Your task to perform on an android device: Search for sushi restaurants on Maps Image 0: 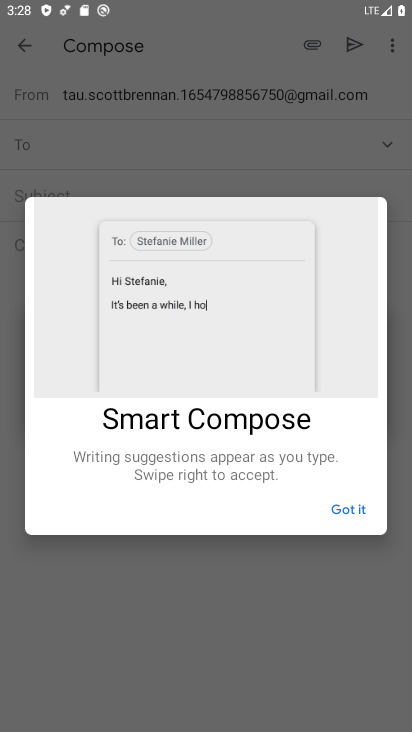
Step 0: press home button
Your task to perform on an android device: Search for sushi restaurants on Maps Image 1: 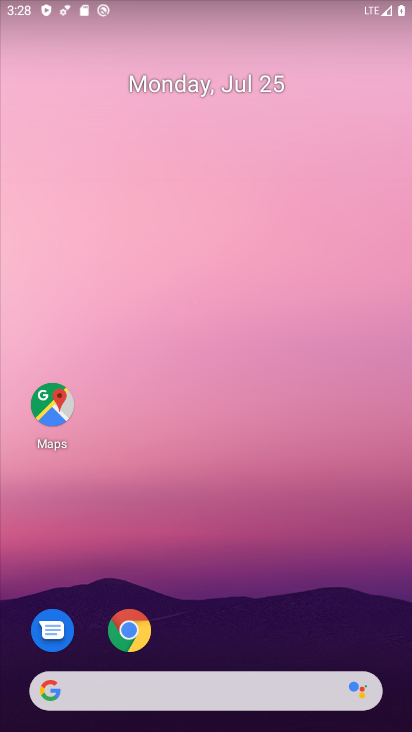
Step 1: click (62, 400)
Your task to perform on an android device: Search for sushi restaurants on Maps Image 2: 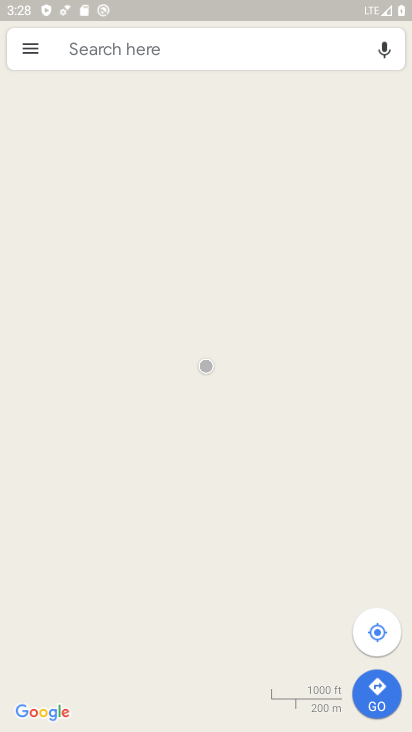
Step 2: click (121, 49)
Your task to perform on an android device: Search for sushi restaurants on Maps Image 3: 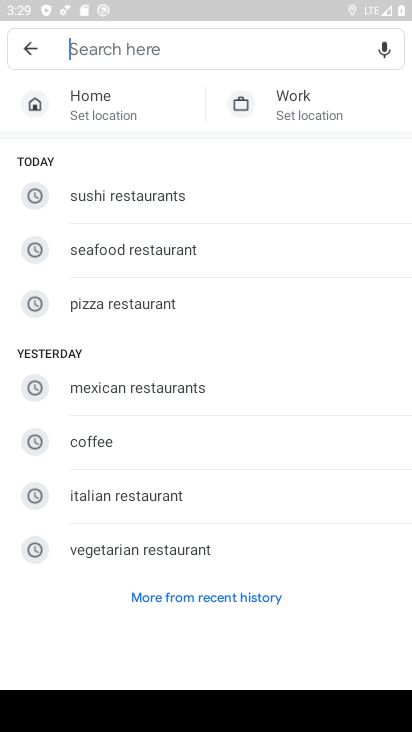
Step 3: type "sushi restaurants"
Your task to perform on an android device: Search for sushi restaurants on Maps Image 4: 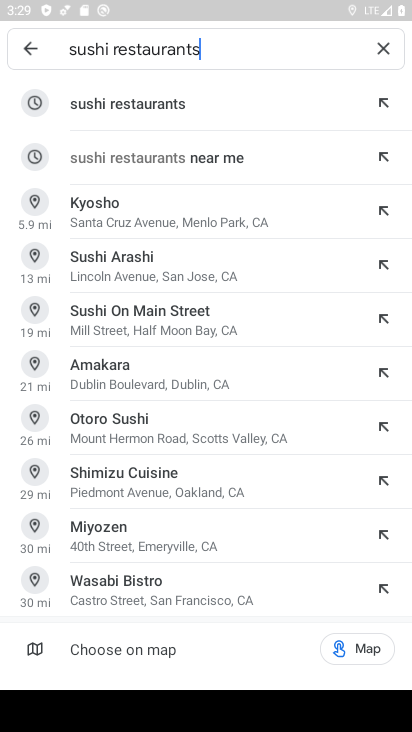
Step 4: click (185, 103)
Your task to perform on an android device: Search for sushi restaurants on Maps Image 5: 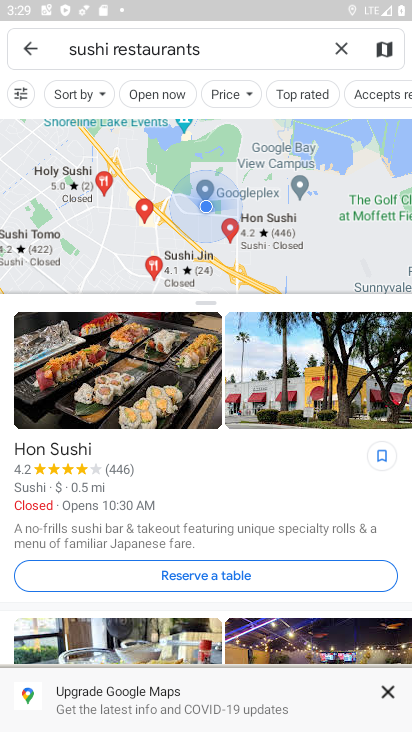
Step 5: task complete